Your task to perform on an android device: Go to Yahoo.com Image 0: 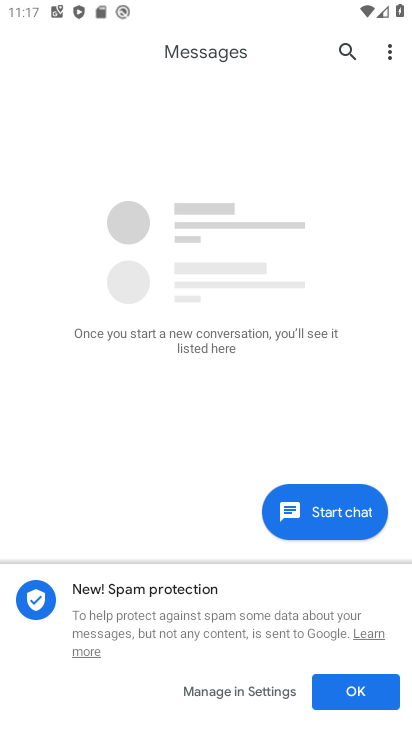
Step 0: press home button
Your task to perform on an android device: Go to Yahoo.com Image 1: 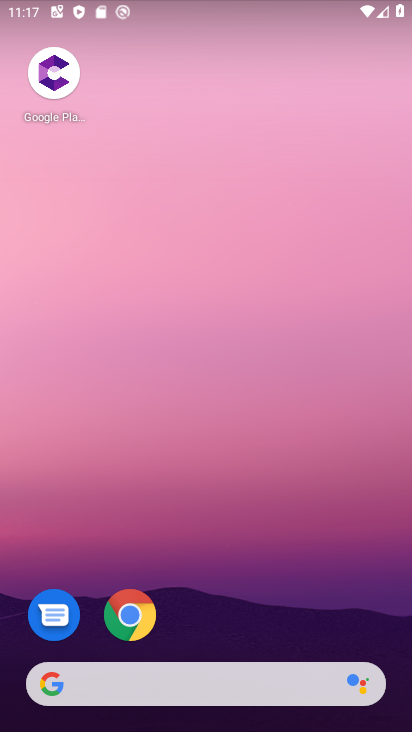
Step 1: click (134, 616)
Your task to perform on an android device: Go to Yahoo.com Image 2: 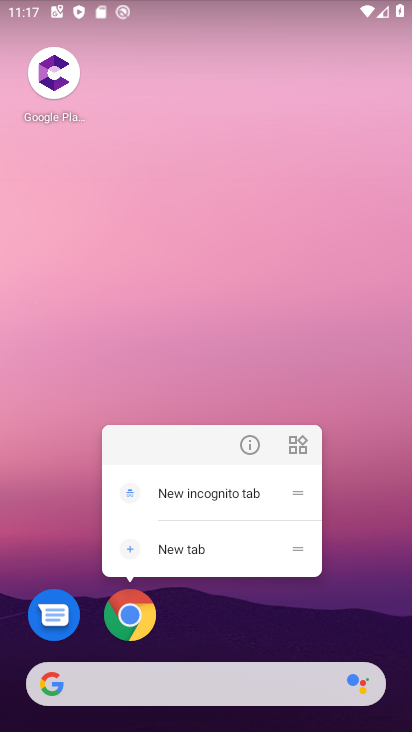
Step 2: click (125, 608)
Your task to perform on an android device: Go to Yahoo.com Image 3: 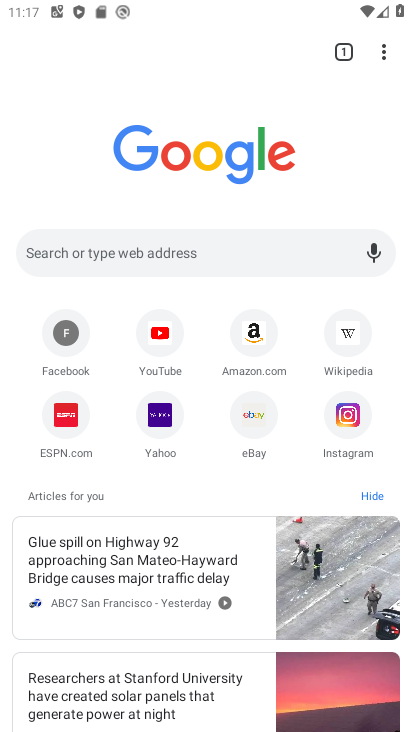
Step 3: click (157, 415)
Your task to perform on an android device: Go to Yahoo.com Image 4: 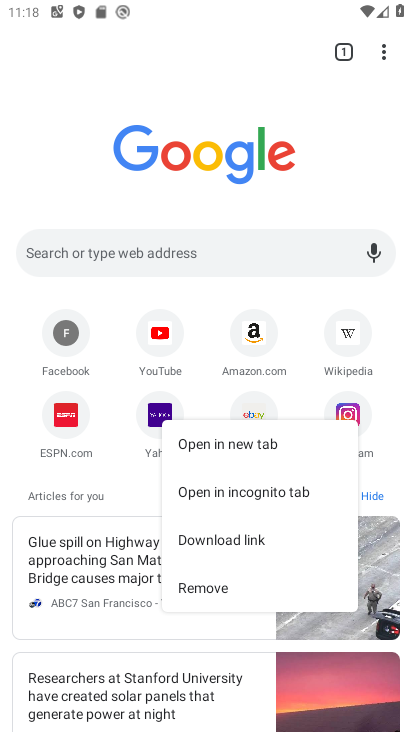
Step 4: click (154, 414)
Your task to perform on an android device: Go to Yahoo.com Image 5: 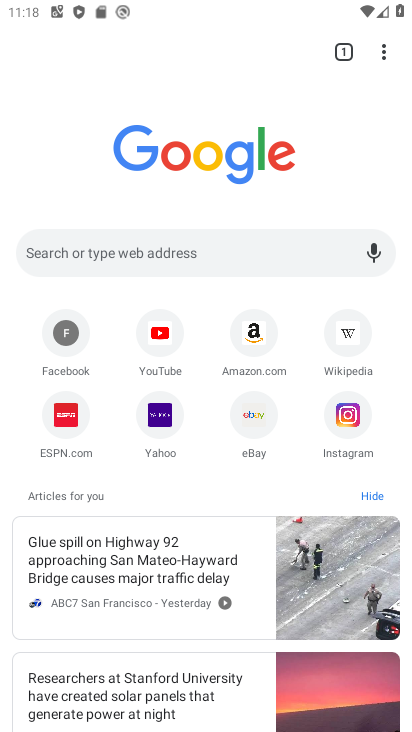
Step 5: click (154, 414)
Your task to perform on an android device: Go to Yahoo.com Image 6: 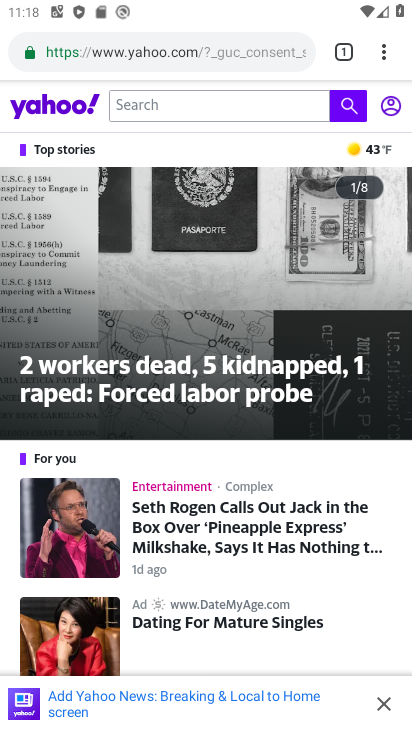
Step 6: task complete